Your task to perform on an android device: search for starred emails in the gmail app Image 0: 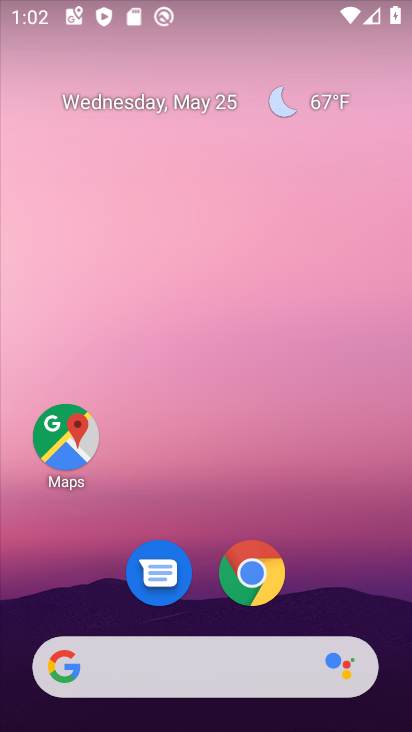
Step 0: drag from (378, 587) to (305, 102)
Your task to perform on an android device: search for starred emails in the gmail app Image 1: 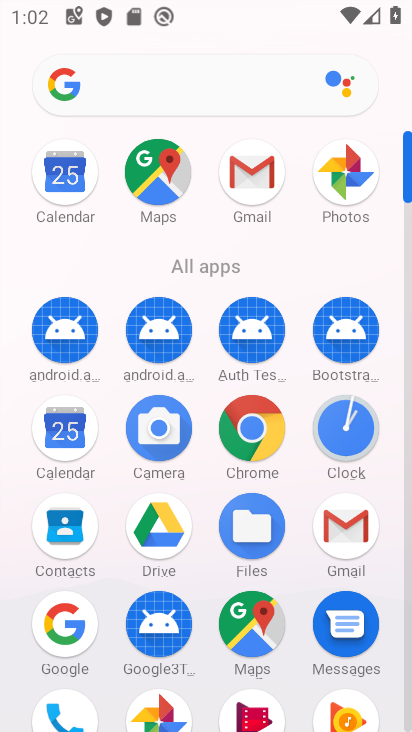
Step 1: click (407, 684)
Your task to perform on an android device: search for starred emails in the gmail app Image 2: 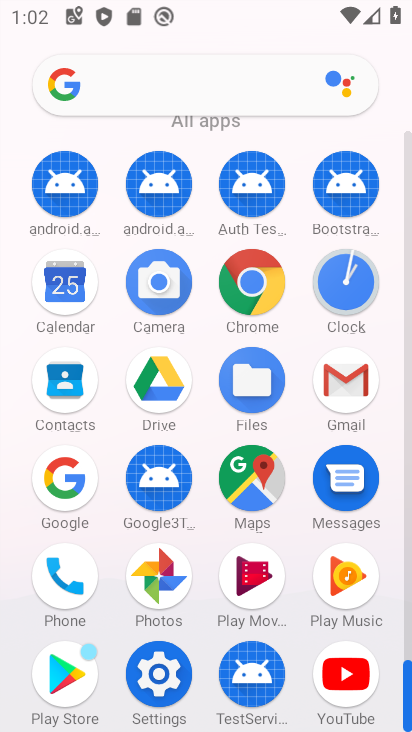
Step 2: click (342, 378)
Your task to perform on an android device: search for starred emails in the gmail app Image 3: 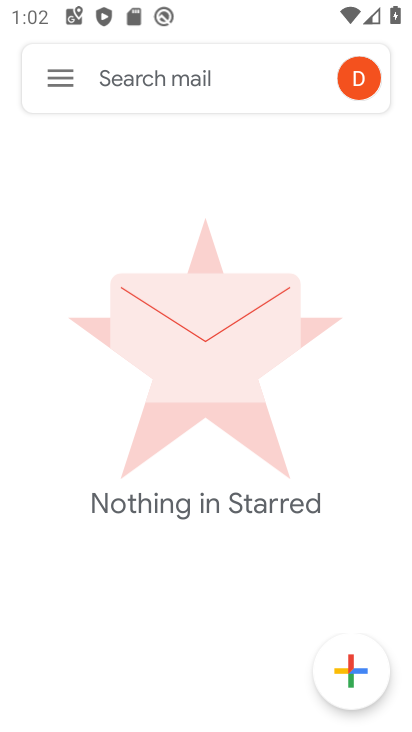
Step 3: click (54, 79)
Your task to perform on an android device: search for starred emails in the gmail app Image 4: 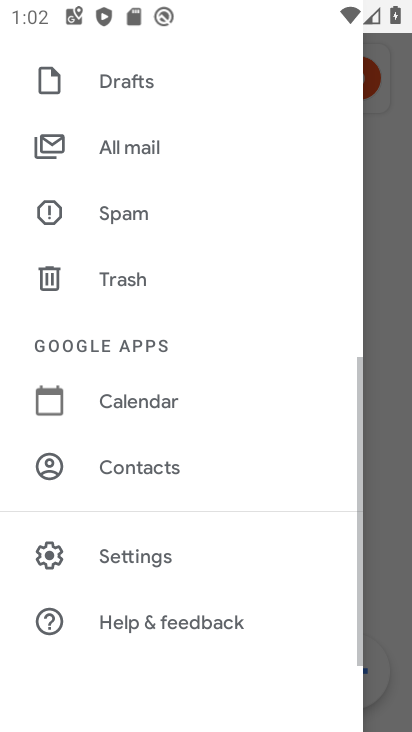
Step 4: drag from (181, 118) to (175, 522)
Your task to perform on an android device: search for starred emails in the gmail app Image 5: 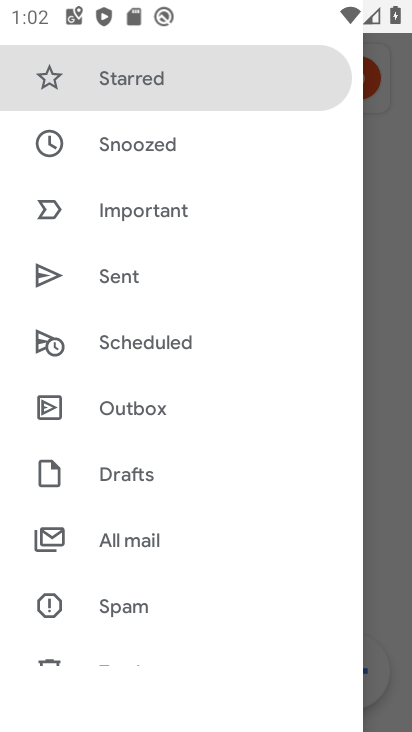
Step 5: click (136, 78)
Your task to perform on an android device: search for starred emails in the gmail app Image 6: 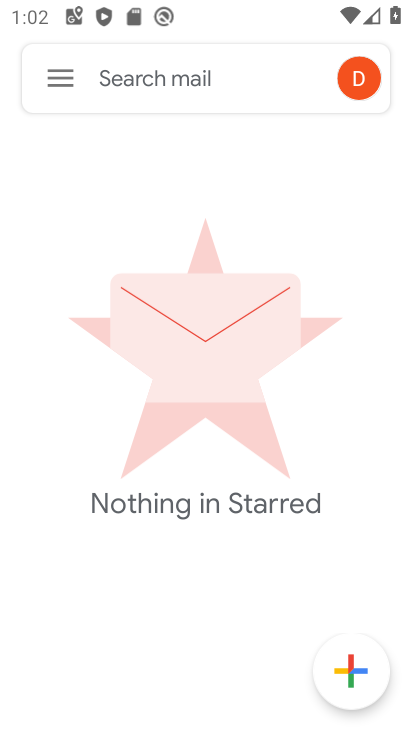
Step 6: task complete